Your task to perform on an android device: turn off smart reply in the gmail app Image 0: 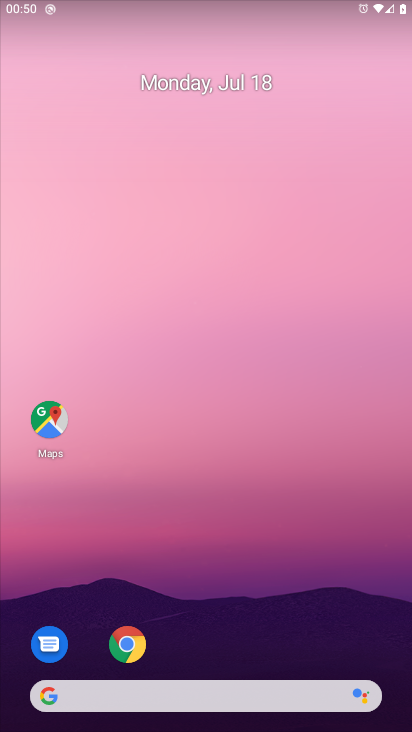
Step 0: press home button
Your task to perform on an android device: turn off smart reply in the gmail app Image 1: 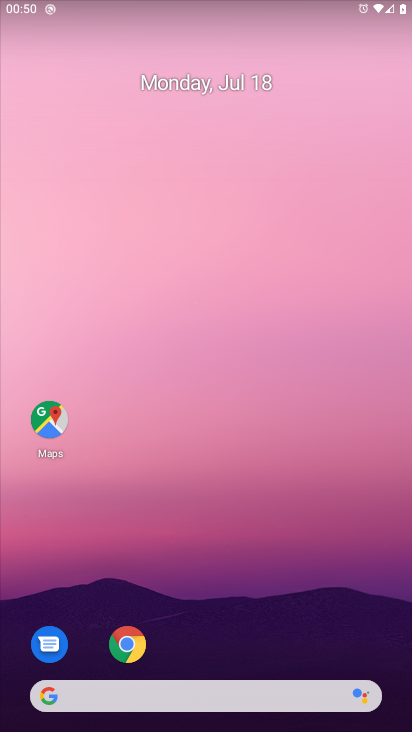
Step 1: drag from (270, 606) to (241, 41)
Your task to perform on an android device: turn off smart reply in the gmail app Image 2: 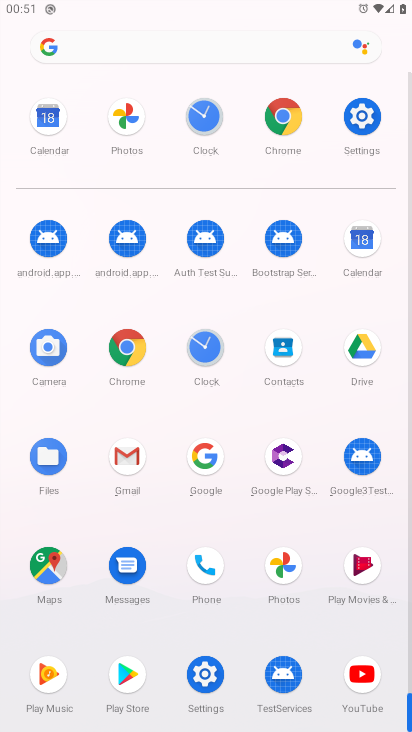
Step 2: click (123, 456)
Your task to perform on an android device: turn off smart reply in the gmail app Image 3: 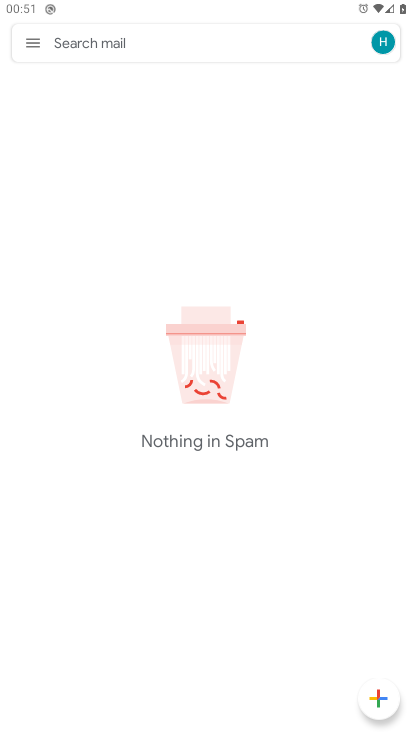
Step 3: click (30, 44)
Your task to perform on an android device: turn off smart reply in the gmail app Image 4: 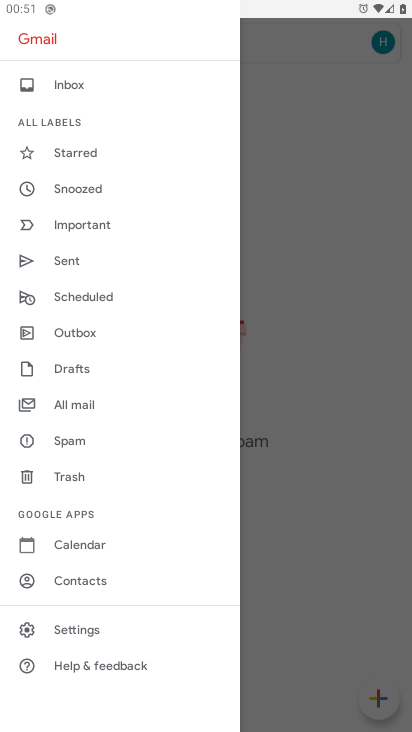
Step 4: click (79, 626)
Your task to perform on an android device: turn off smart reply in the gmail app Image 5: 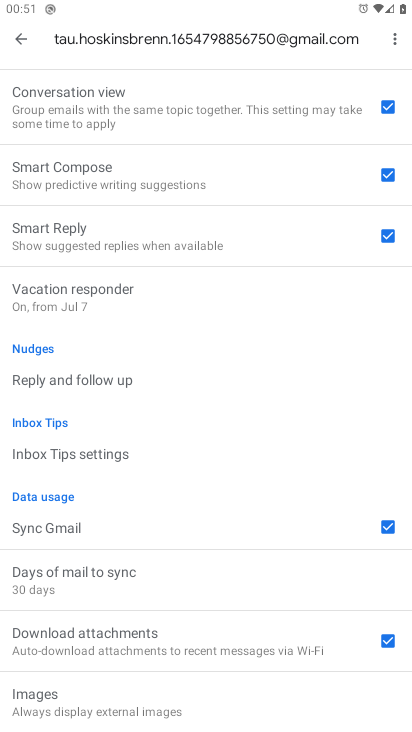
Step 5: drag from (225, 684) to (208, 213)
Your task to perform on an android device: turn off smart reply in the gmail app Image 6: 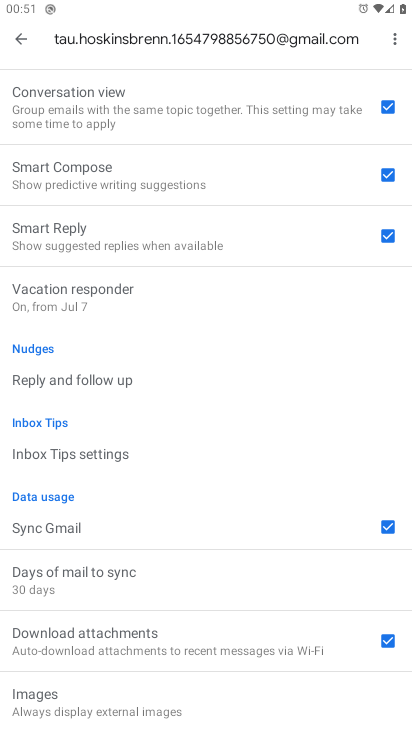
Step 6: click (389, 230)
Your task to perform on an android device: turn off smart reply in the gmail app Image 7: 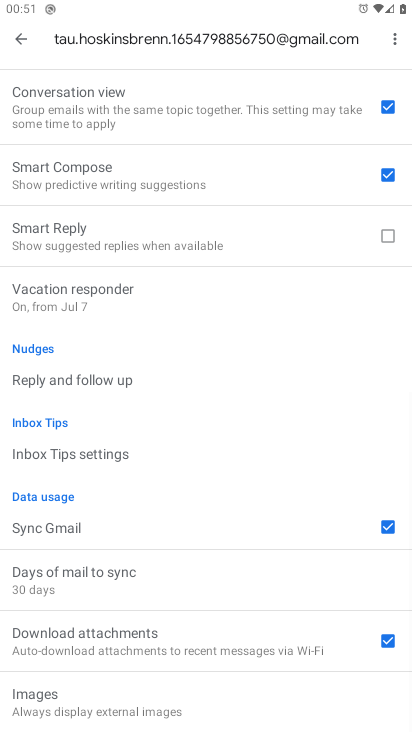
Step 7: task complete